Your task to perform on an android device: Open Youtube and go to "Your channel" Image 0: 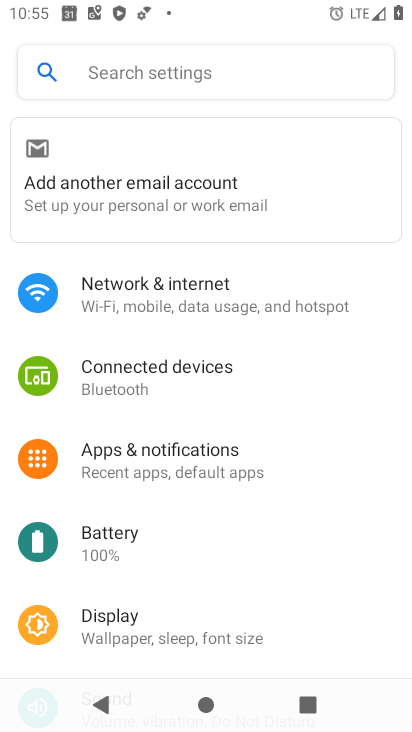
Step 0: press home button
Your task to perform on an android device: Open Youtube and go to "Your channel" Image 1: 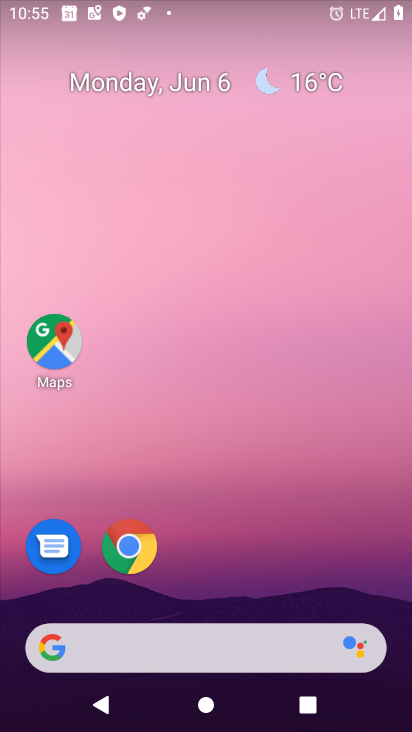
Step 1: drag from (228, 578) to (307, 4)
Your task to perform on an android device: Open Youtube and go to "Your channel" Image 2: 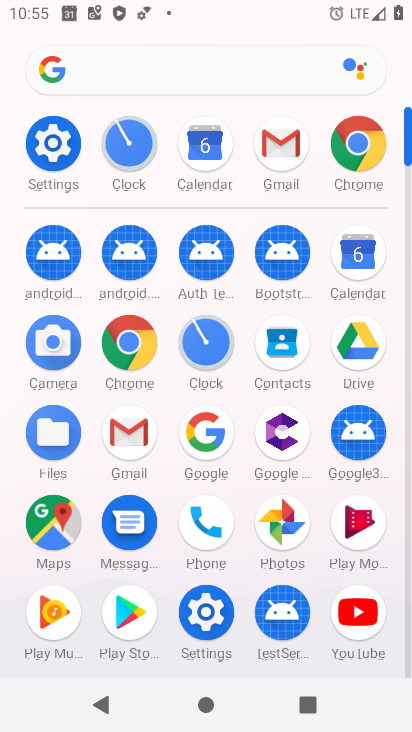
Step 2: click (352, 623)
Your task to perform on an android device: Open Youtube and go to "Your channel" Image 3: 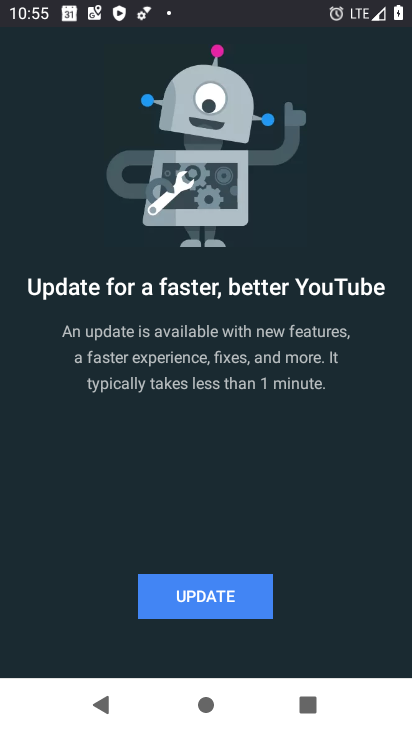
Step 3: click (224, 590)
Your task to perform on an android device: Open Youtube and go to "Your channel" Image 4: 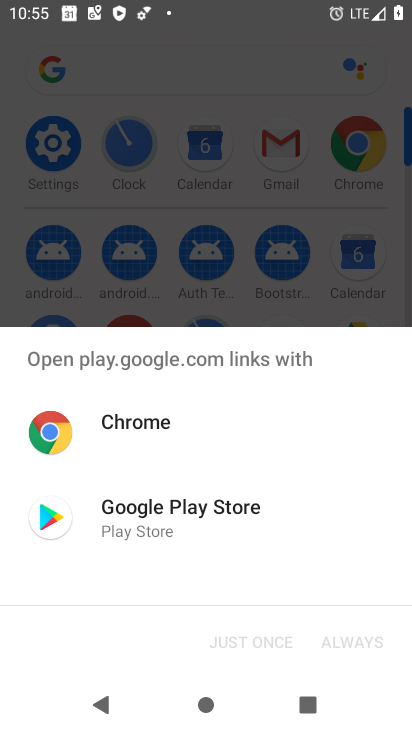
Step 4: click (164, 533)
Your task to perform on an android device: Open Youtube and go to "Your channel" Image 5: 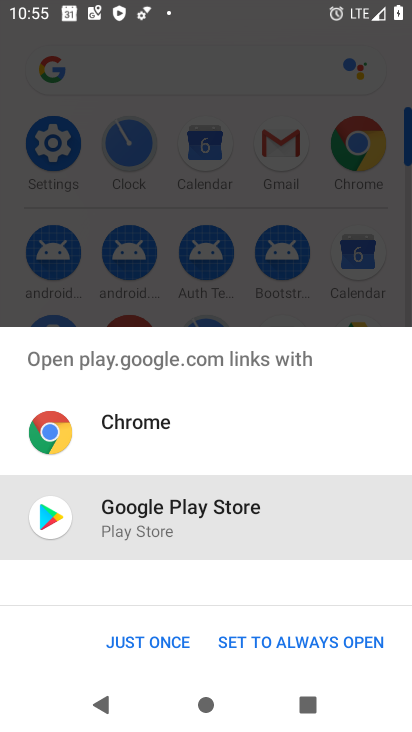
Step 5: click (158, 643)
Your task to perform on an android device: Open Youtube and go to "Your channel" Image 6: 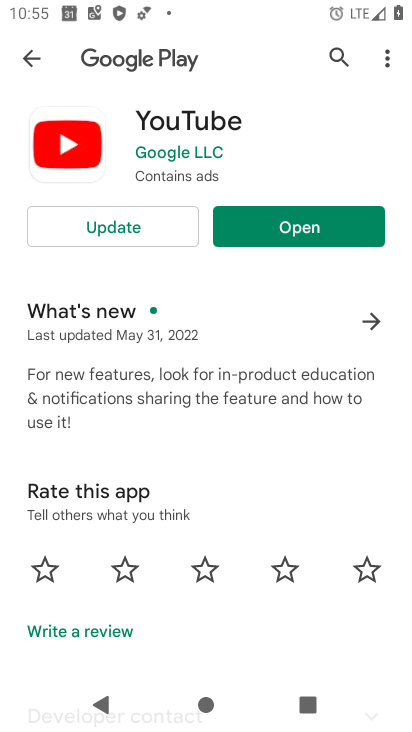
Step 6: click (154, 222)
Your task to perform on an android device: Open Youtube and go to "Your channel" Image 7: 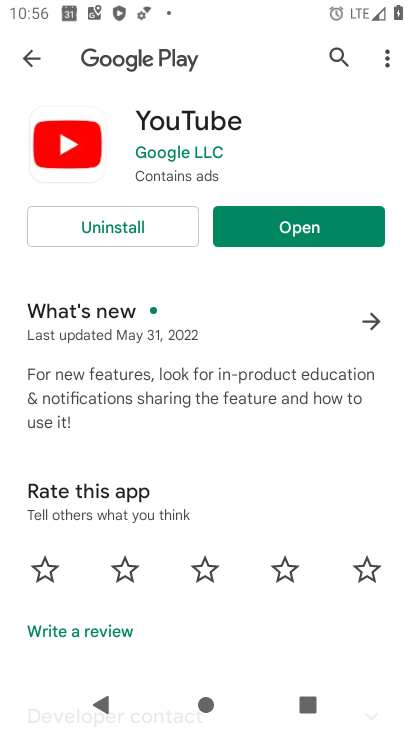
Step 7: click (279, 227)
Your task to perform on an android device: Open Youtube and go to "Your channel" Image 8: 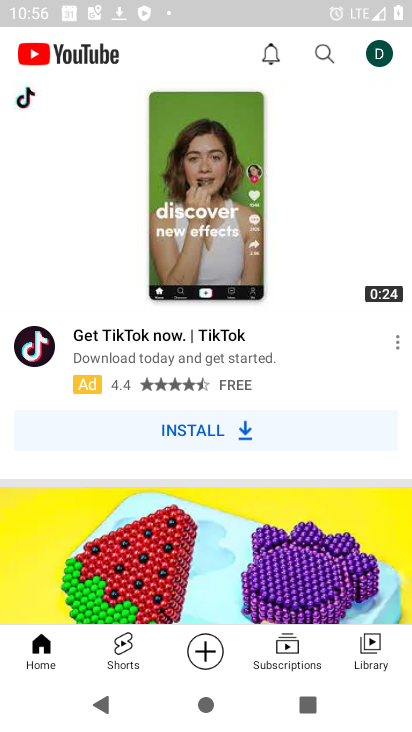
Step 8: click (385, 47)
Your task to perform on an android device: Open Youtube and go to "Your channel" Image 9: 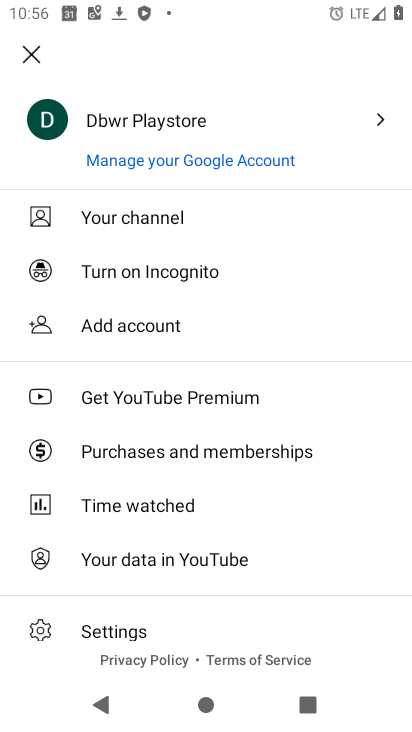
Step 9: click (136, 218)
Your task to perform on an android device: Open Youtube and go to "Your channel" Image 10: 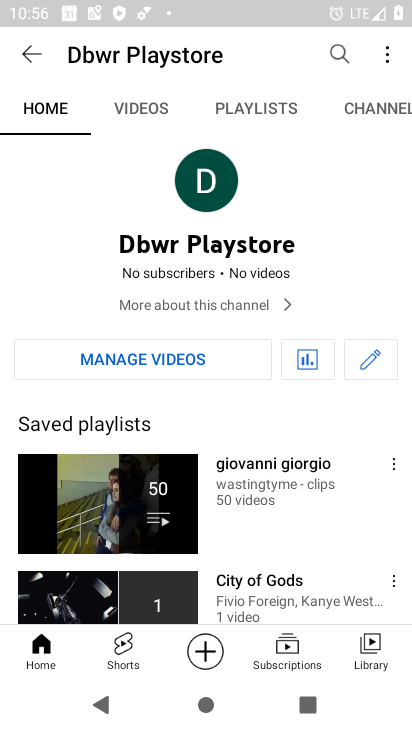
Step 10: task complete